Your task to perform on an android device: Go to location settings Image 0: 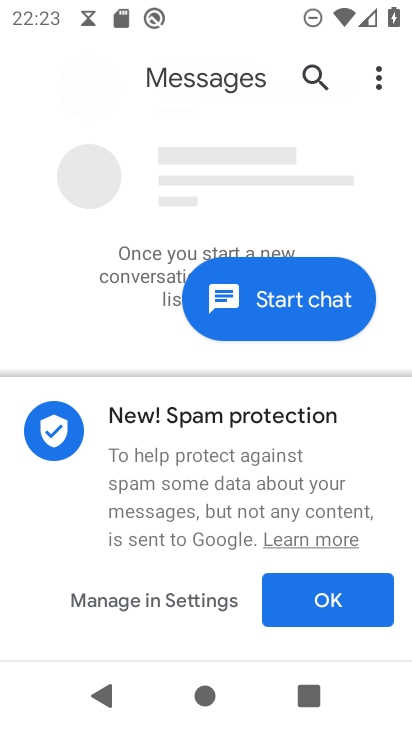
Step 0: press home button
Your task to perform on an android device: Go to location settings Image 1: 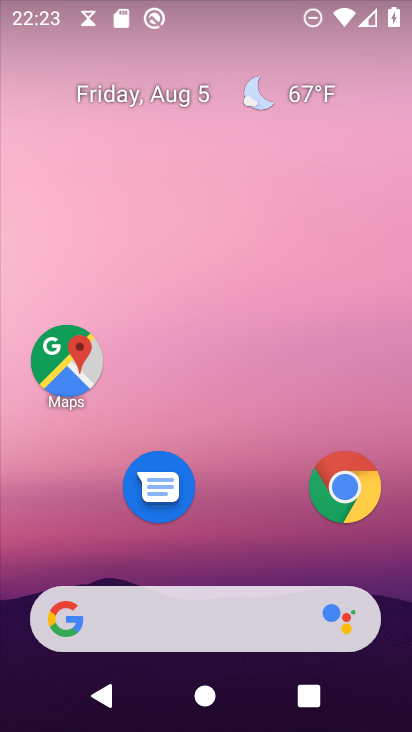
Step 1: drag from (207, 615) to (275, 63)
Your task to perform on an android device: Go to location settings Image 2: 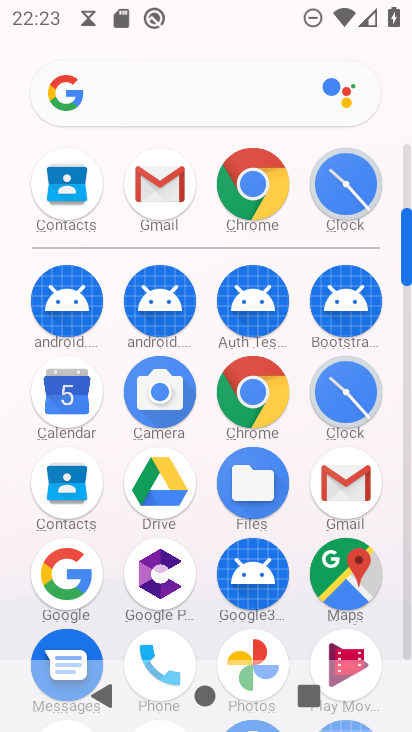
Step 2: drag from (208, 631) to (339, 0)
Your task to perform on an android device: Go to location settings Image 3: 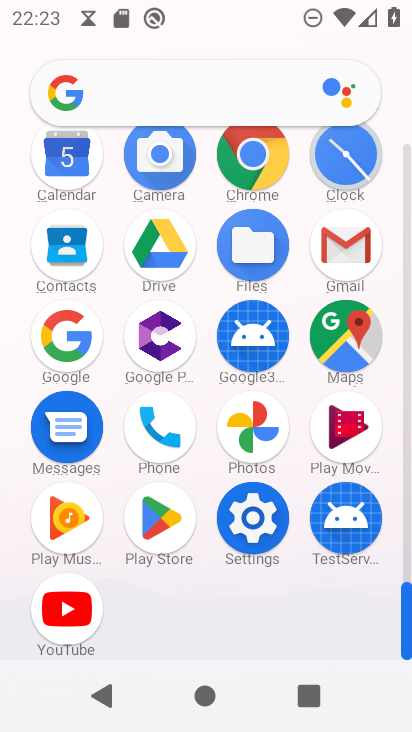
Step 3: drag from (260, 518) to (256, 340)
Your task to perform on an android device: Go to location settings Image 4: 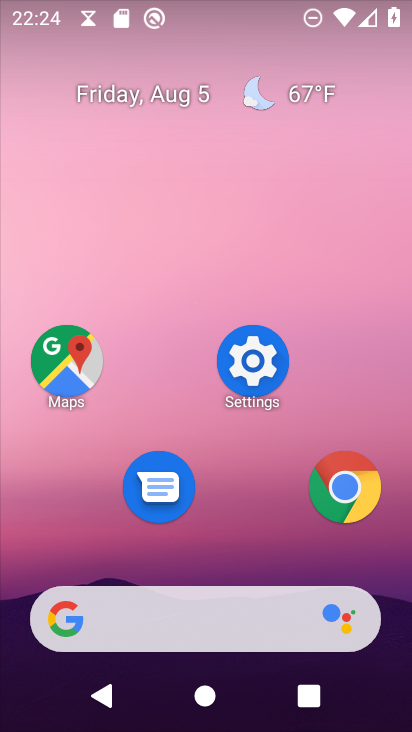
Step 4: click (263, 362)
Your task to perform on an android device: Go to location settings Image 5: 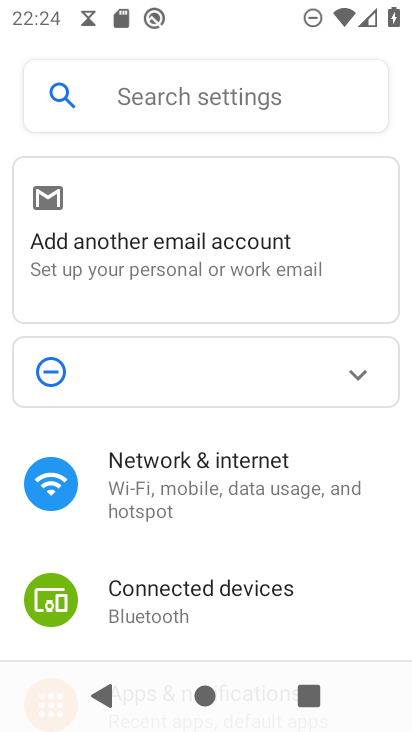
Step 5: drag from (339, 626) to (393, 80)
Your task to perform on an android device: Go to location settings Image 6: 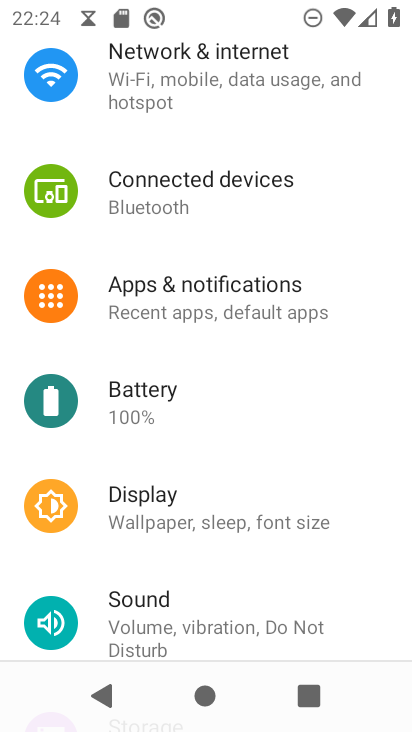
Step 6: drag from (314, 589) to (315, 291)
Your task to perform on an android device: Go to location settings Image 7: 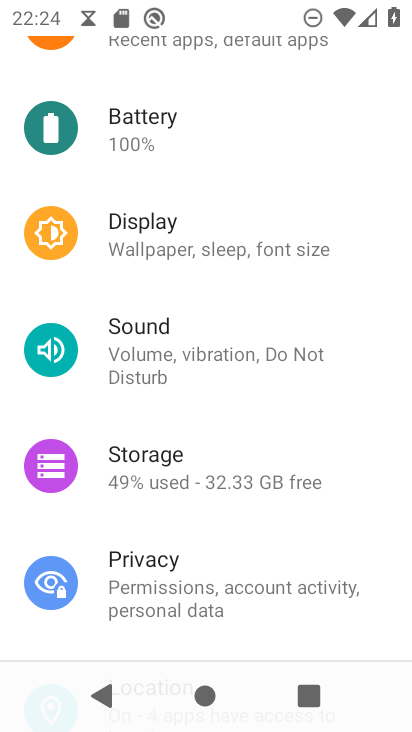
Step 7: drag from (272, 539) to (341, 270)
Your task to perform on an android device: Go to location settings Image 8: 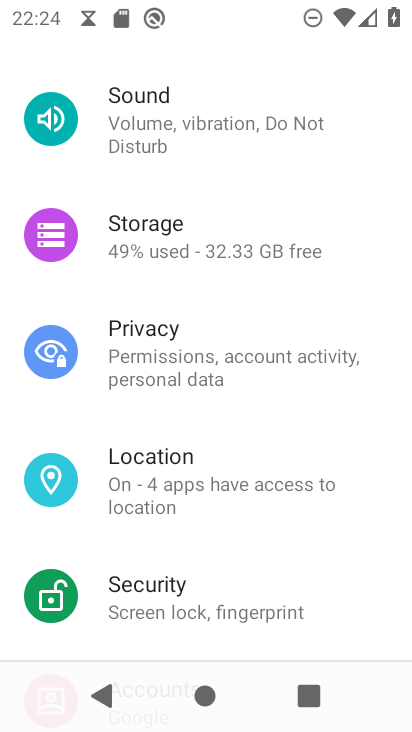
Step 8: click (162, 477)
Your task to perform on an android device: Go to location settings Image 9: 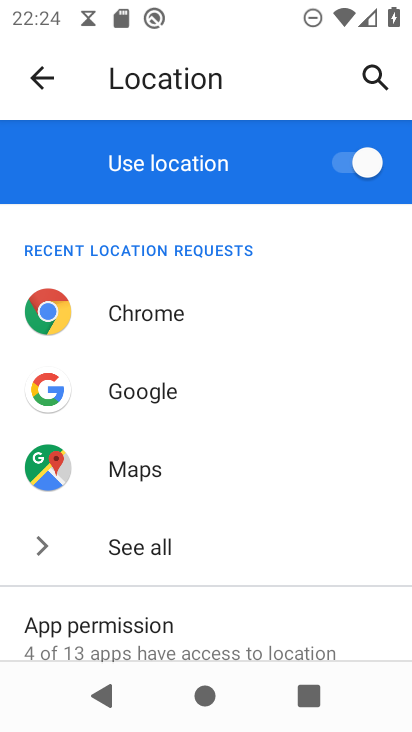
Step 9: task complete